Your task to perform on an android device: Open settings on Google Maps Image 0: 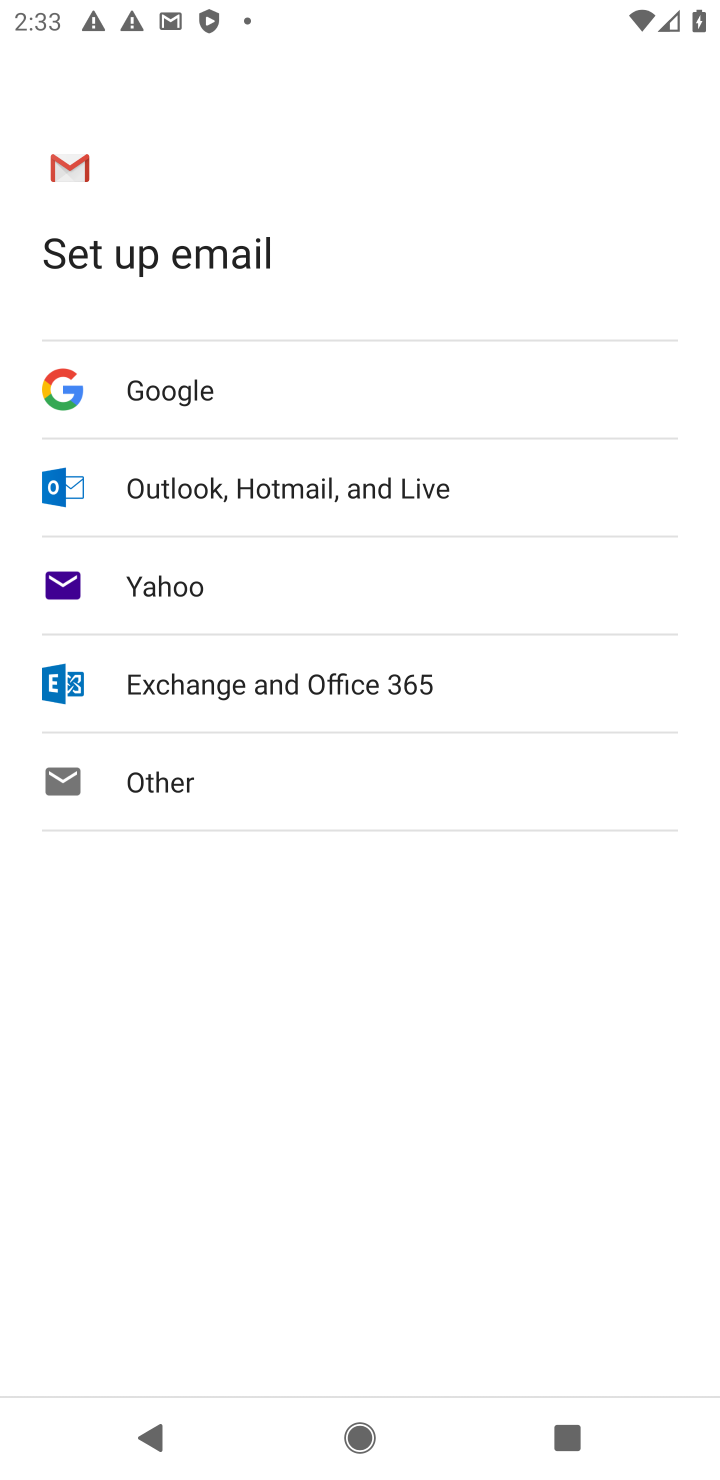
Step 0: press home button
Your task to perform on an android device: Open settings on Google Maps Image 1: 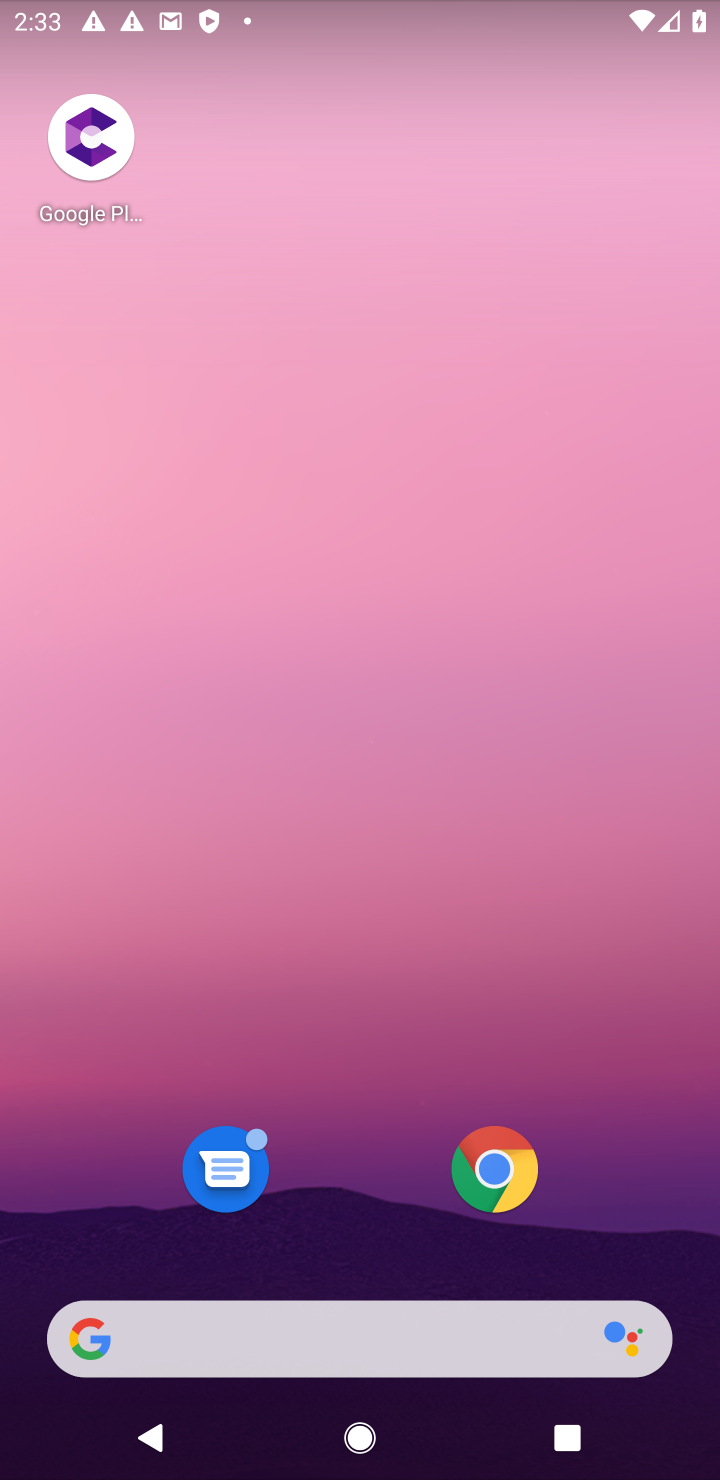
Step 1: drag from (332, 1331) to (508, 0)
Your task to perform on an android device: Open settings on Google Maps Image 2: 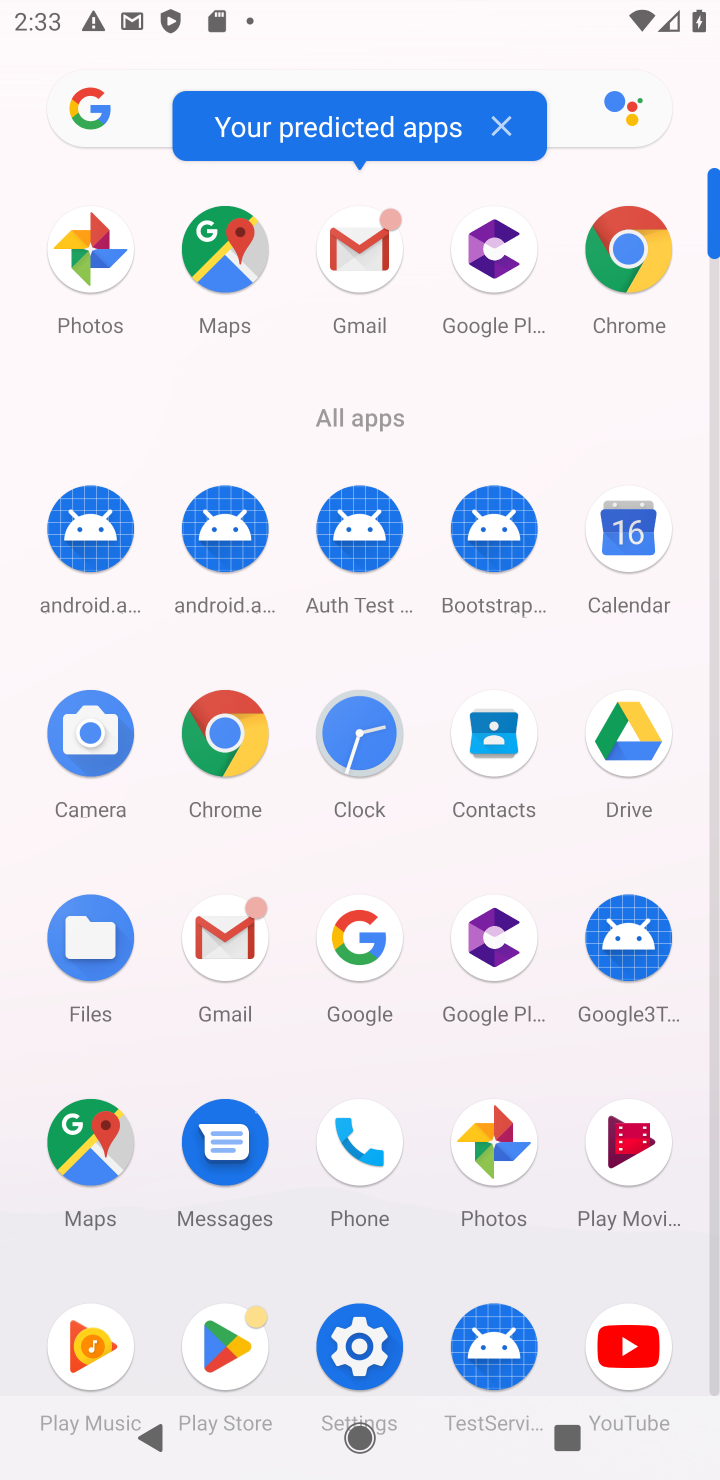
Step 2: drag from (225, 251) to (382, 951)
Your task to perform on an android device: Open settings on Google Maps Image 3: 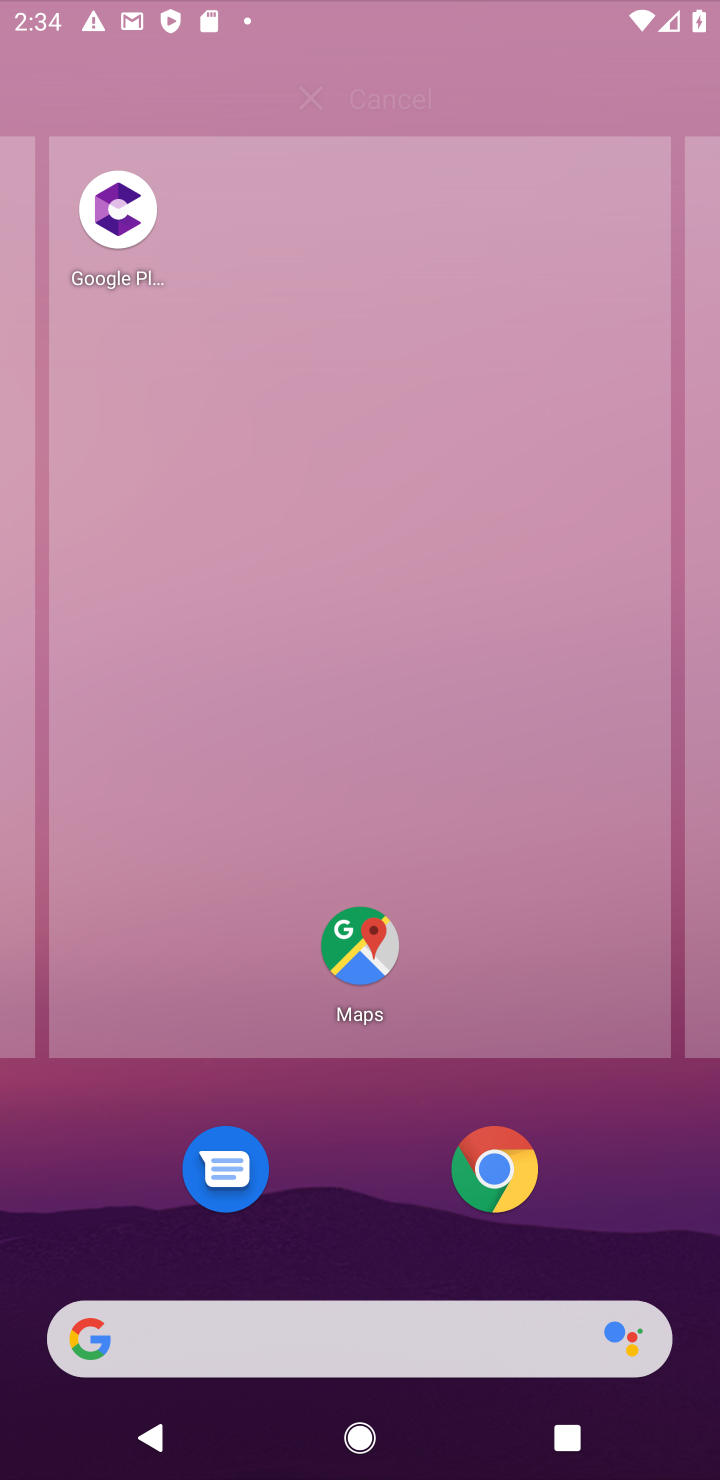
Step 3: click (345, 941)
Your task to perform on an android device: Open settings on Google Maps Image 4: 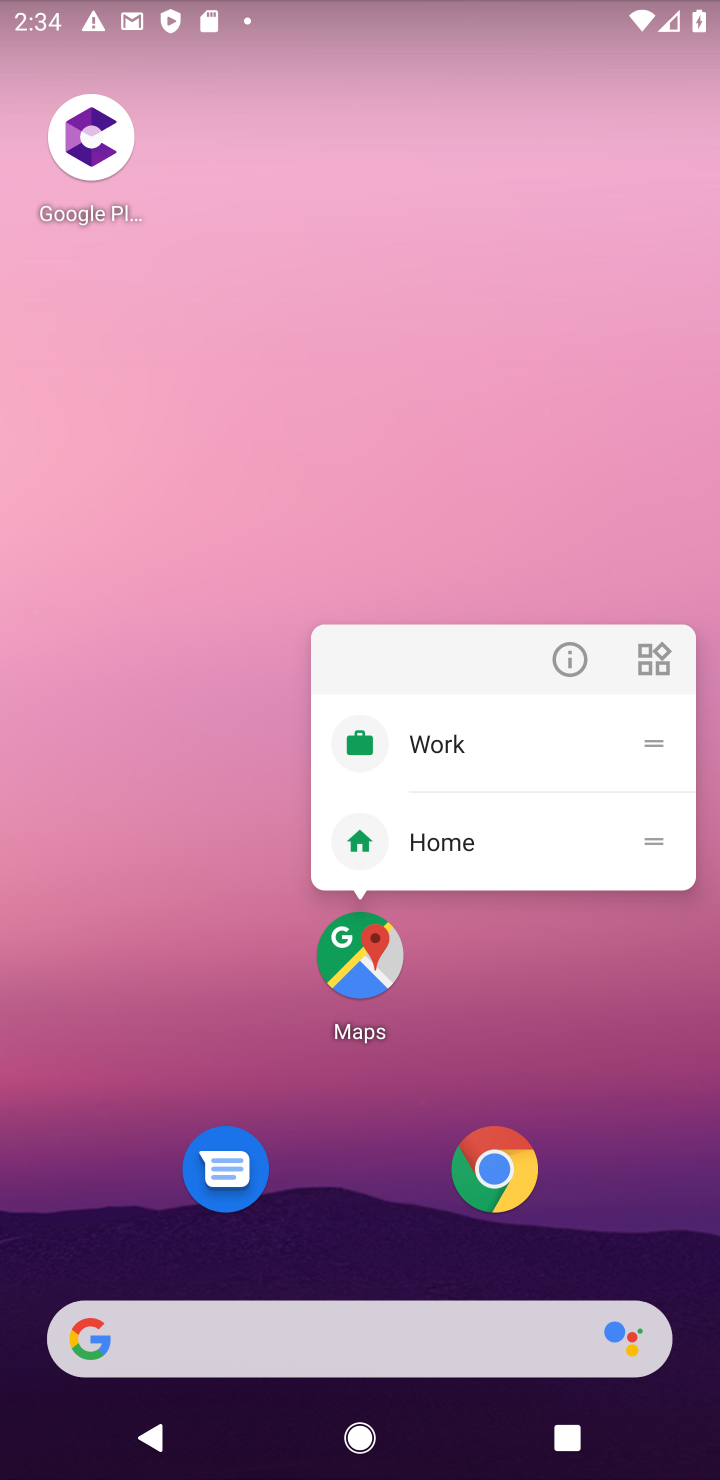
Step 4: click (361, 953)
Your task to perform on an android device: Open settings on Google Maps Image 5: 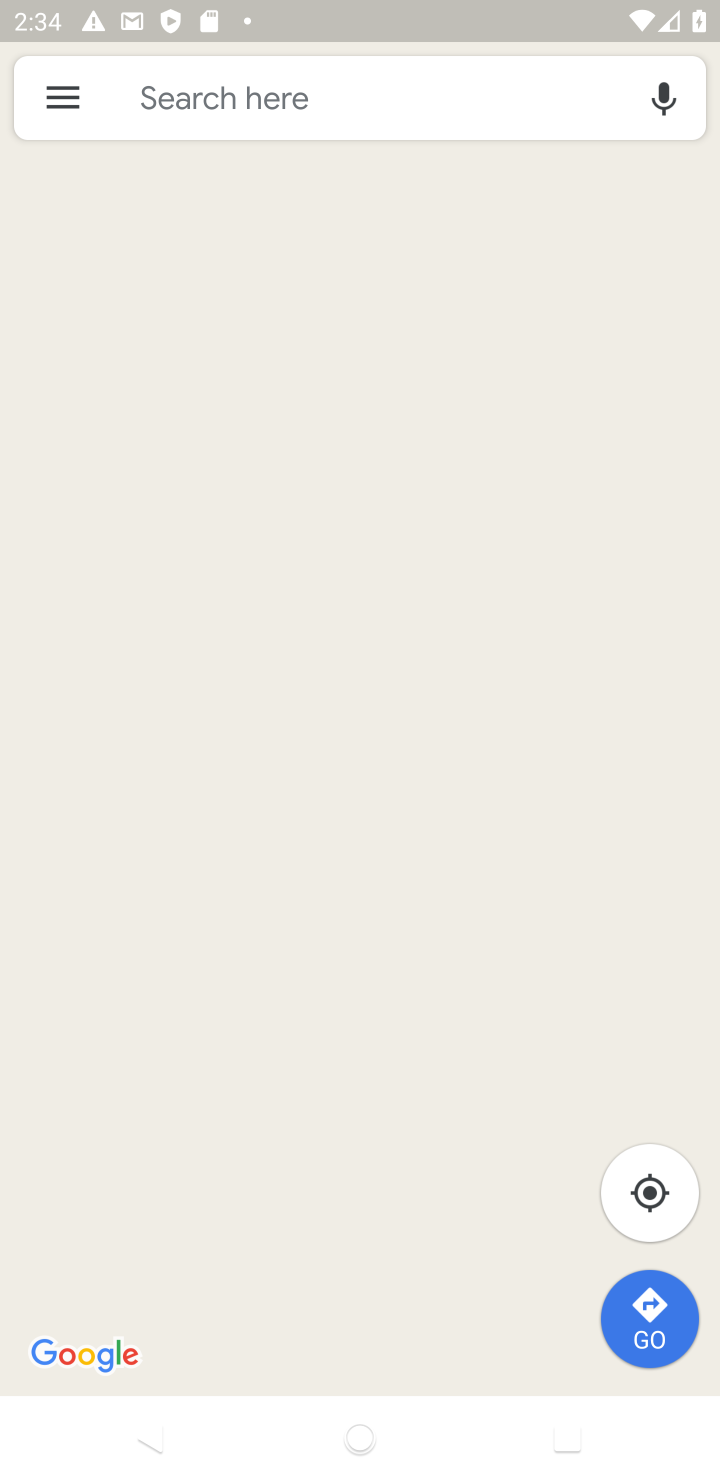
Step 5: click (61, 96)
Your task to perform on an android device: Open settings on Google Maps Image 6: 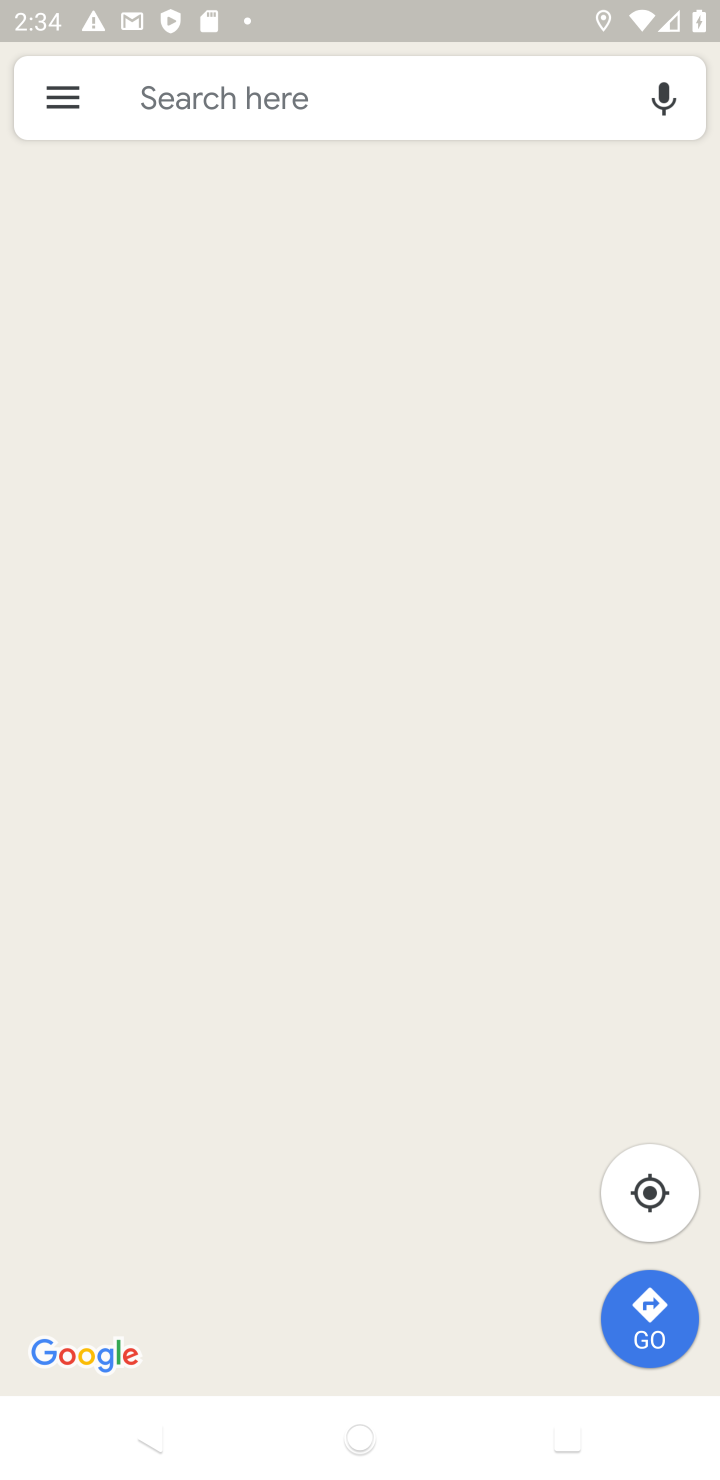
Step 6: click (68, 100)
Your task to perform on an android device: Open settings on Google Maps Image 7: 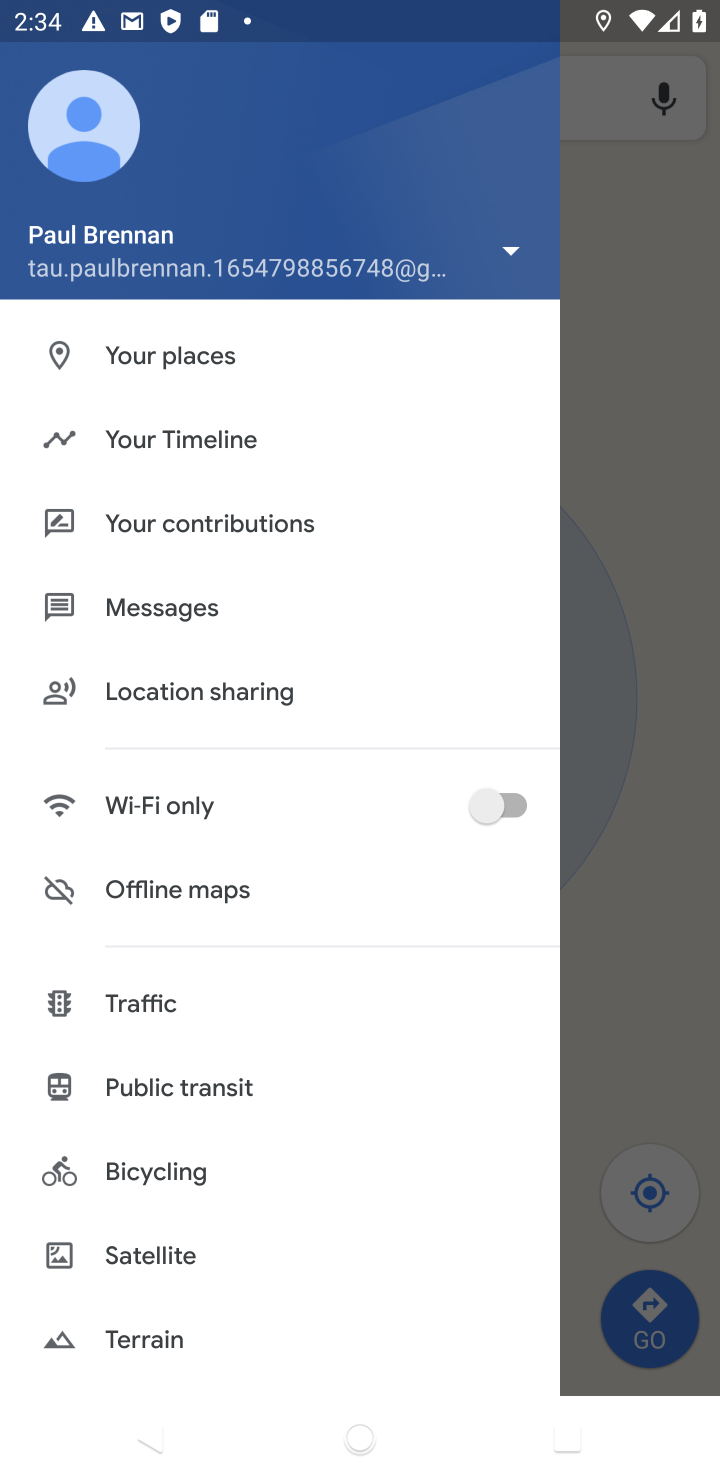
Step 7: drag from (257, 1316) to (390, 613)
Your task to perform on an android device: Open settings on Google Maps Image 8: 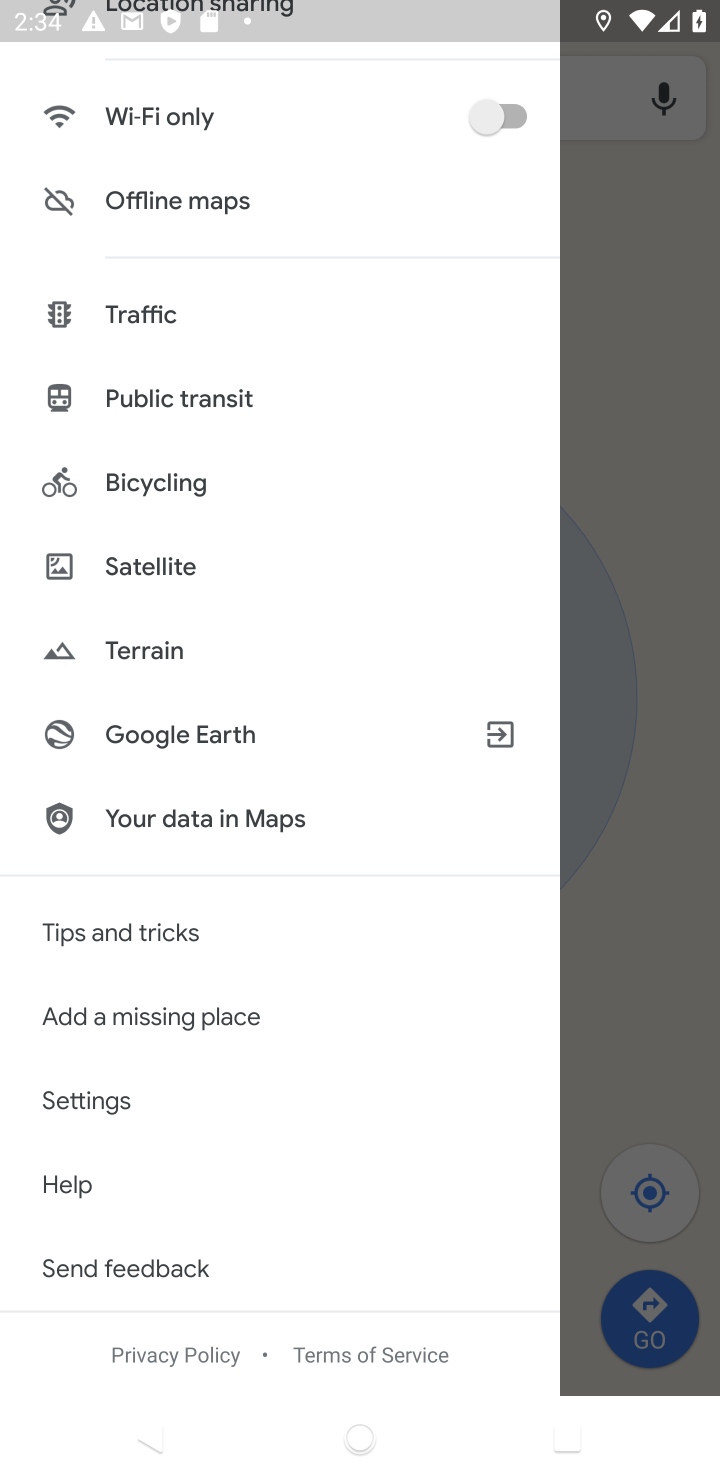
Step 8: click (85, 1099)
Your task to perform on an android device: Open settings on Google Maps Image 9: 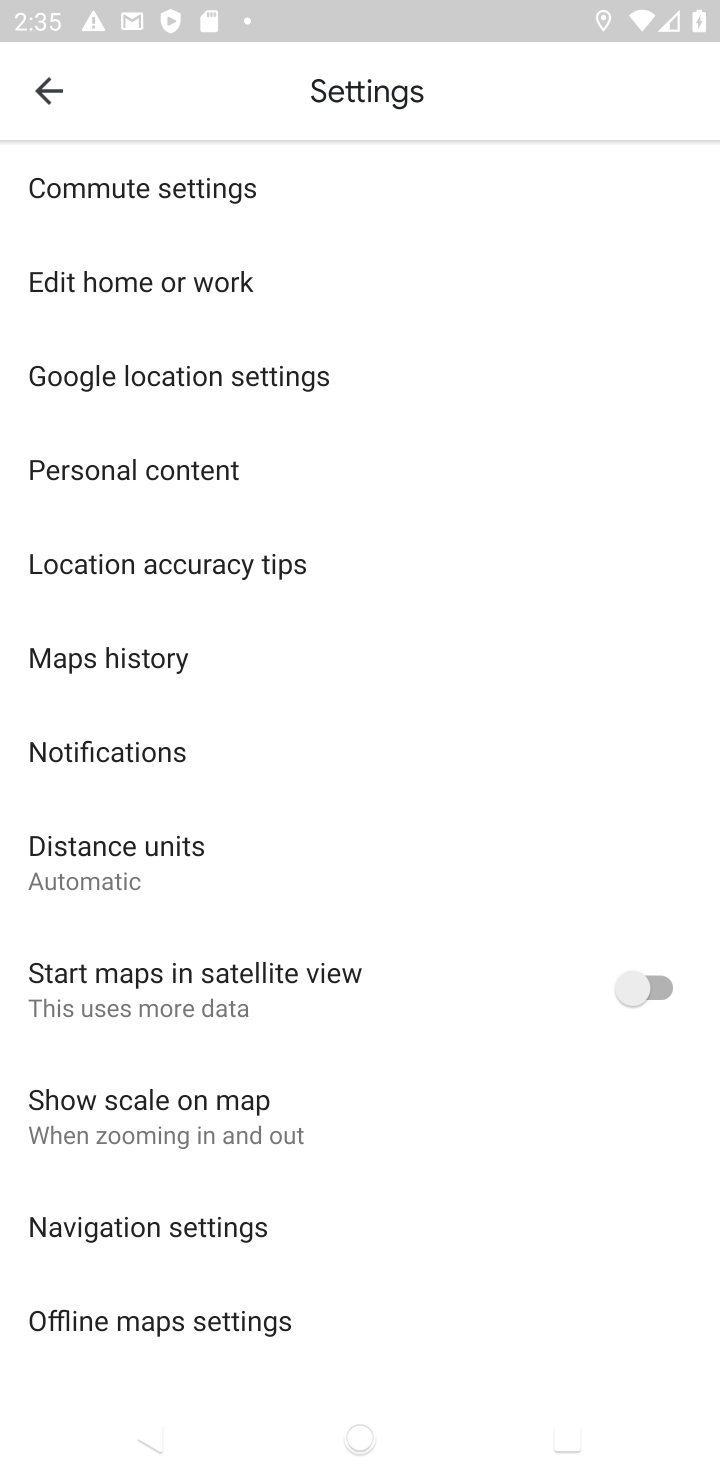
Step 9: task complete